Your task to perform on an android device: Go to sound settings Image 0: 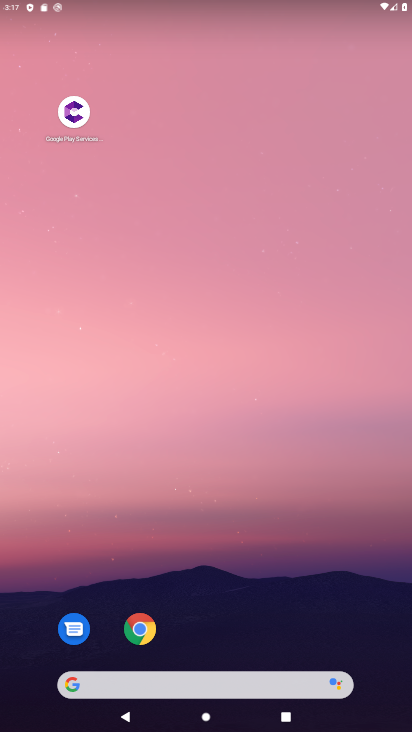
Step 0: drag from (308, 620) to (179, 189)
Your task to perform on an android device: Go to sound settings Image 1: 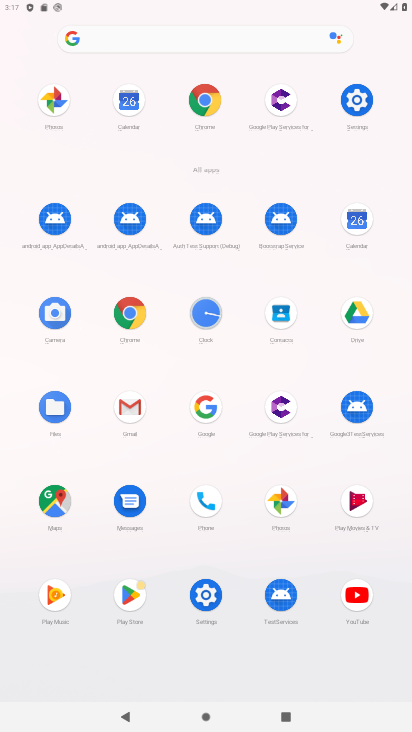
Step 1: click (216, 604)
Your task to perform on an android device: Go to sound settings Image 2: 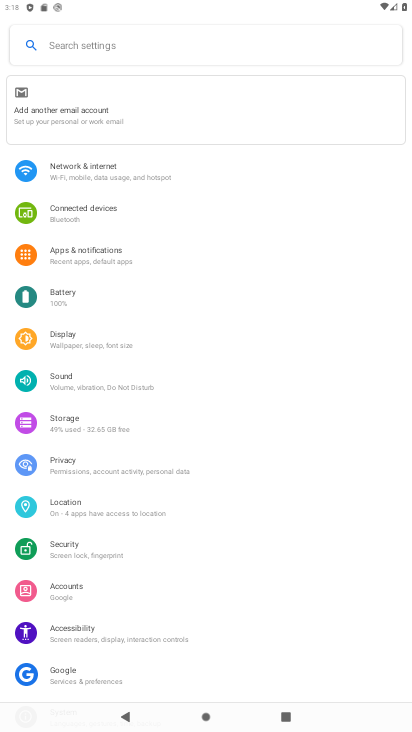
Step 2: click (85, 384)
Your task to perform on an android device: Go to sound settings Image 3: 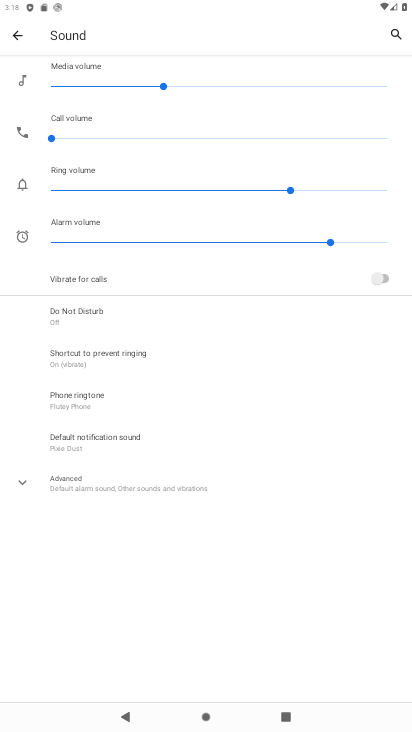
Step 3: task complete